Your task to perform on an android device: Open calendar and show me the third week of next month Image 0: 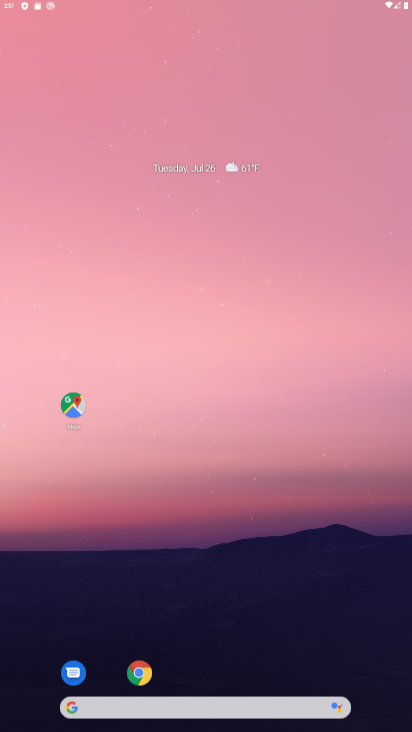
Step 0: press home button
Your task to perform on an android device: Open calendar and show me the third week of next month Image 1: 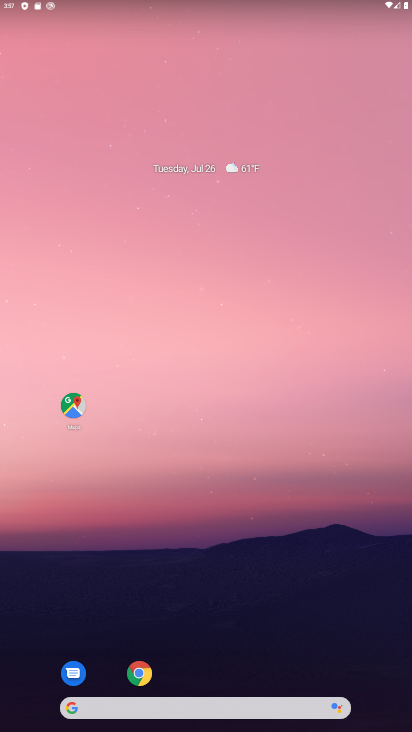
Step 1: drag from (211, 677) to (243, 90)
Your task to perform on an android device: Open calendar and show me the third week of next month Image 2: 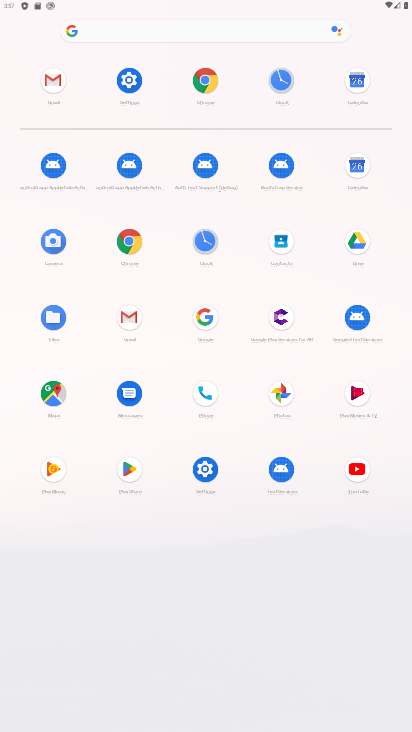
Step 2: click (358, 160)
Your task to perform on an android device: Open calendar and show me the third week of next month Image 3: 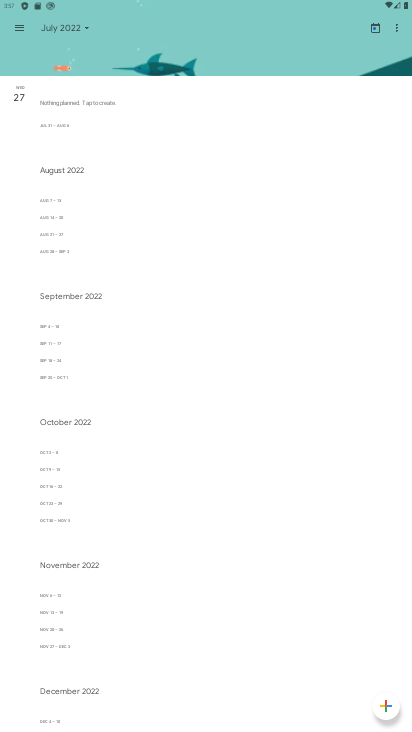
Step 3: click (15, 25)
Your task to perform on an android device: Open calendar and show me the third week of next month Image 4: 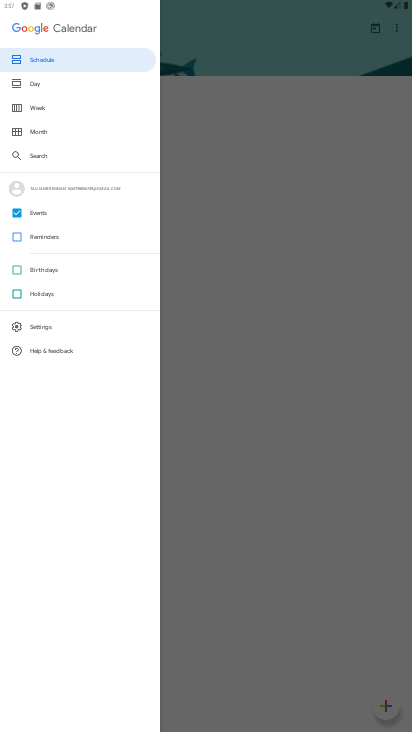
Step 4: click (34, 103)
Your task to perform on an android device: Open calendar and show me the third week of next month Image 5: 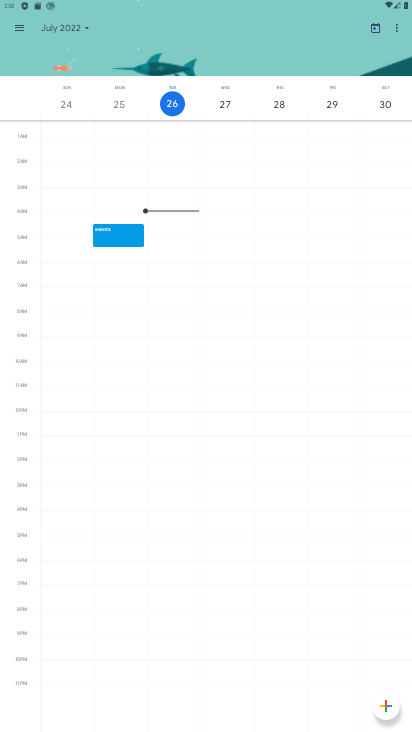
Step 5: click (86, 27)
Your task to perform on an android device: Open calendar and show me the third week of next month Image 6: 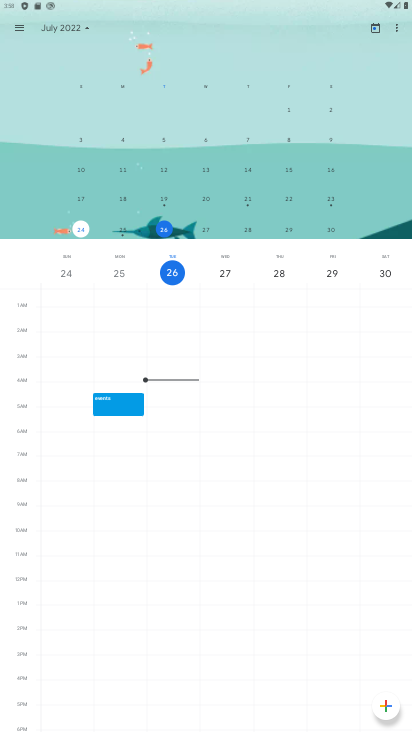
Step 6: drag from (337, 168) to (8, 195)
Your task to perform on an android device: Open calendar and show me the third week of next month Image 7: 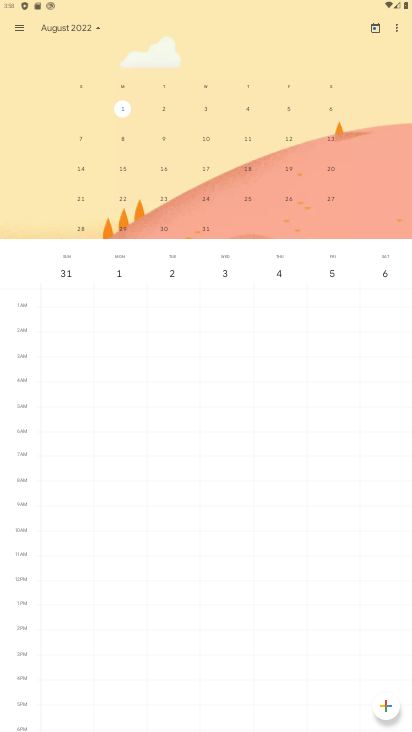
Step 7: click (81, 164)
Your task to perform on an android device: Open calendar and show me the third week of next month Image 8: 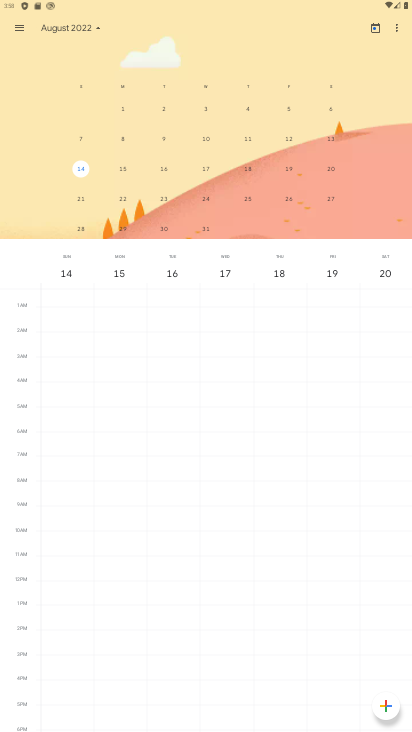
Step 8: click (93, 26)
Your task to perform on an android device: Open calendar and show me the third week of next month Image 9: 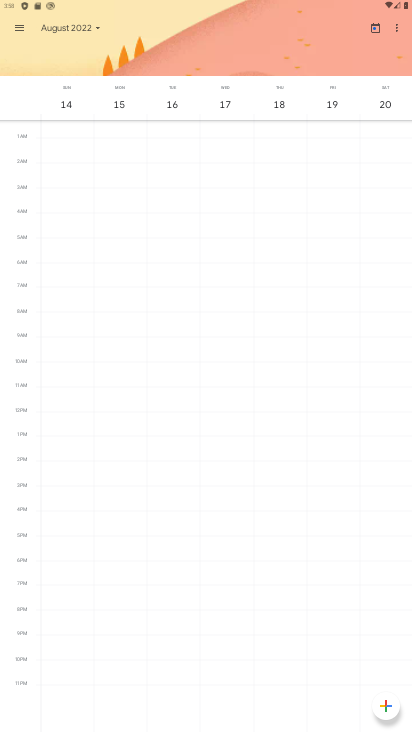
Step 9: task complete